Your task to perform on an android device: clear history in the chrome app Image 0: 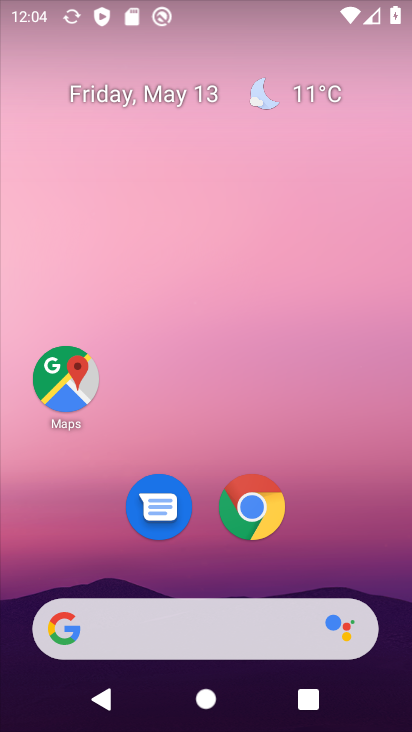
Step 0: click (256, 511)
Your task to perform on an android device: clear history in the chrome app Image 1: 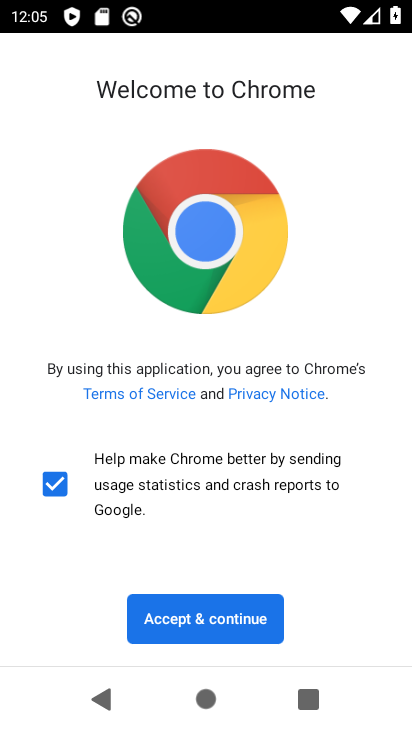
Step 1: click (186, 620)
Your task to perform on an android device: clear history in the chrome app Image 2: 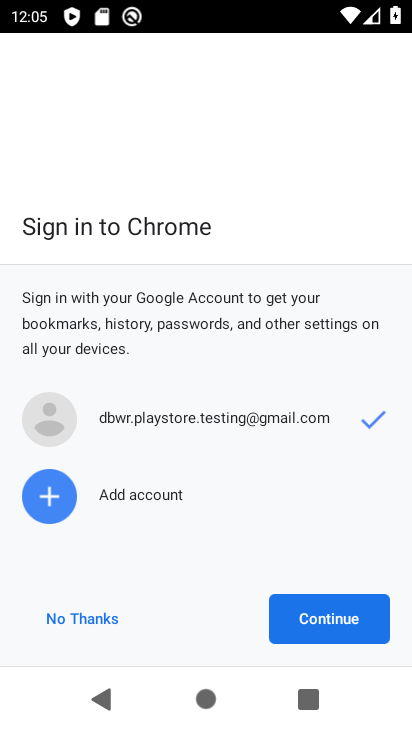
Step 2: click (293, 617)
Your task to perform on an android device: clear history in the chrome app Image 3: 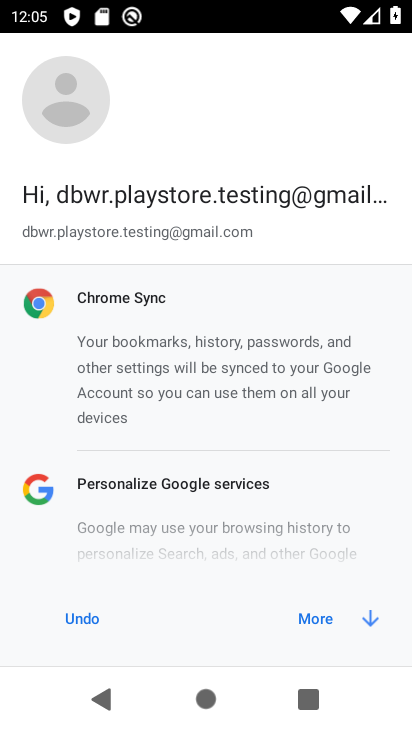
Step 3: click (343, 624)
Your task to perform on an android device: clear history in the chrome app Image 4: 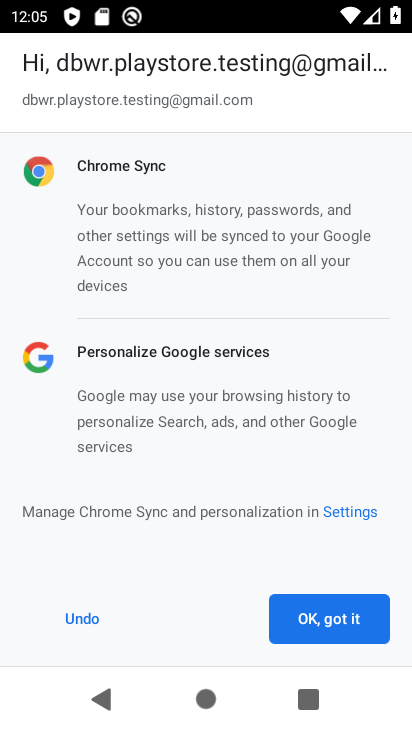
Step 4: click (347, 621)
Your task to perform on an android device: clear history in the chrome app Image 5: 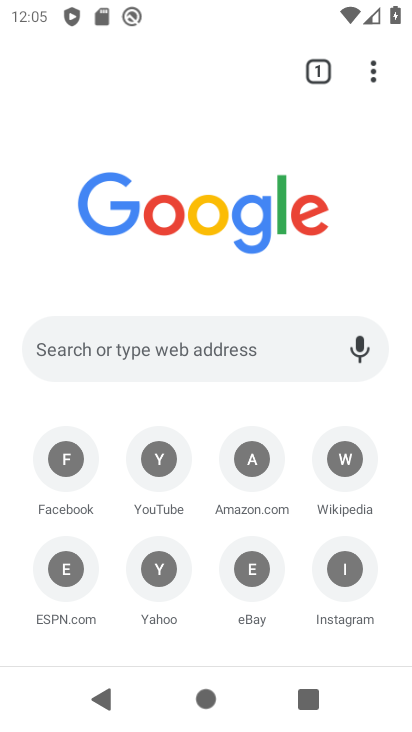
Step 5: click (370, 60)
Your task to perform on an android device: clear history in the chrome app Image 6: 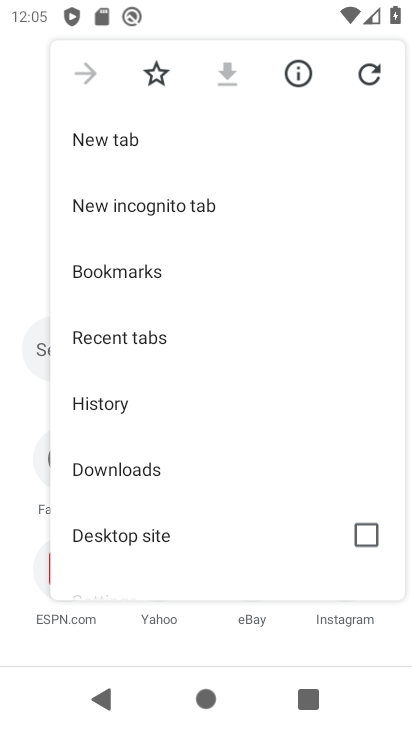
Step 6: click (143, 402)
Your task to perform on an android device: clear history in the chrome app Image 7: 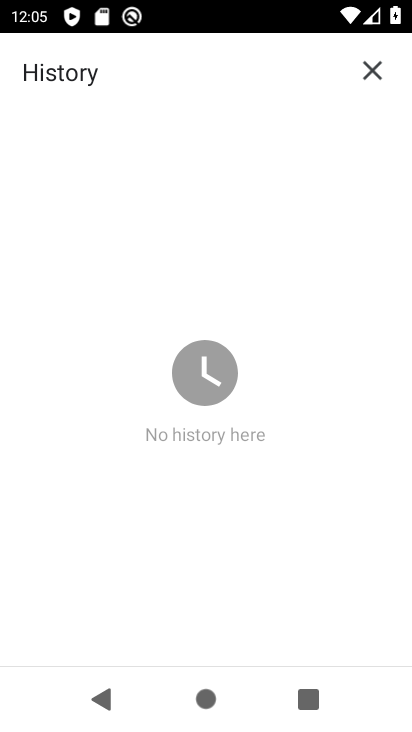
Step 7: task complete